Your task to perform on an android device: set the timer Image 0: 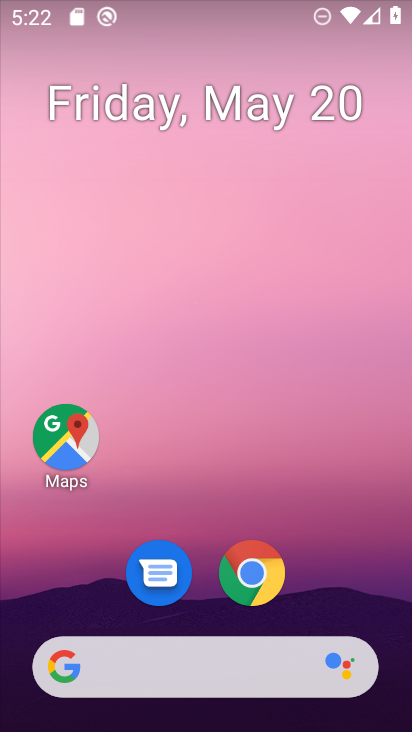
Step 0: drag from (345, 500) to (228, 11)
Your task to perform on an android device: set the timer Image 1: 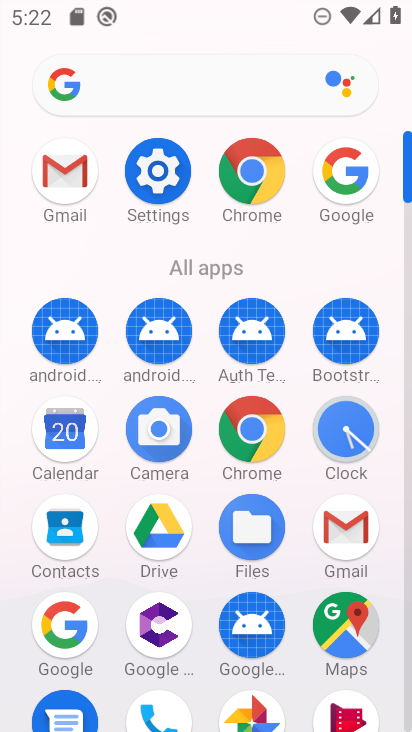
Step 1: click (355, 436)
Your task to perform on an android device: set the timer Image 2: 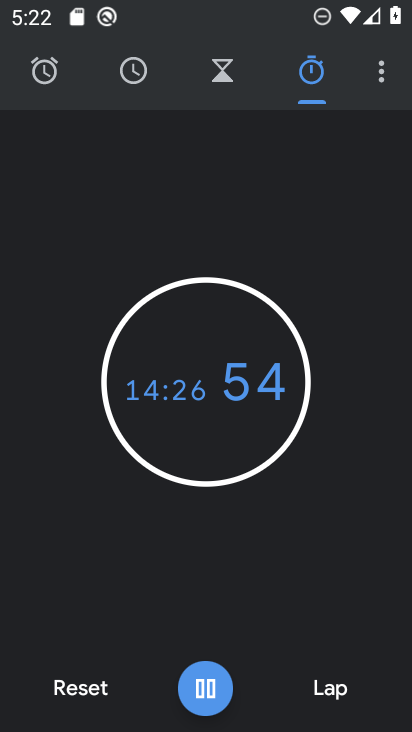
Step 2: click (217, 69)
Your task to perform on an android device: set the timer Image 3: 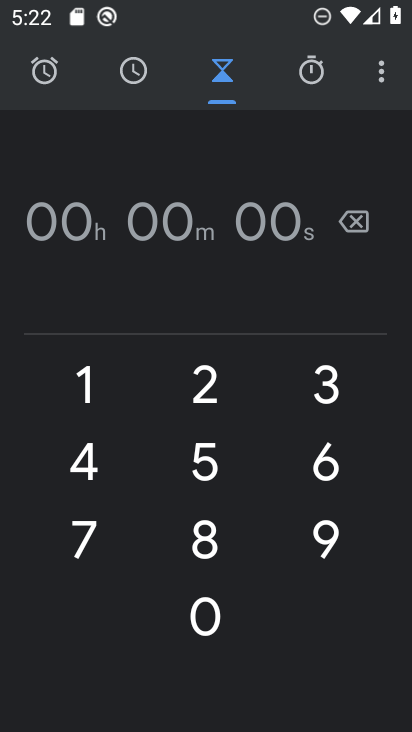
Step 3: click (87, 378)
Your task to perform on an android device: set the timer Image 4: 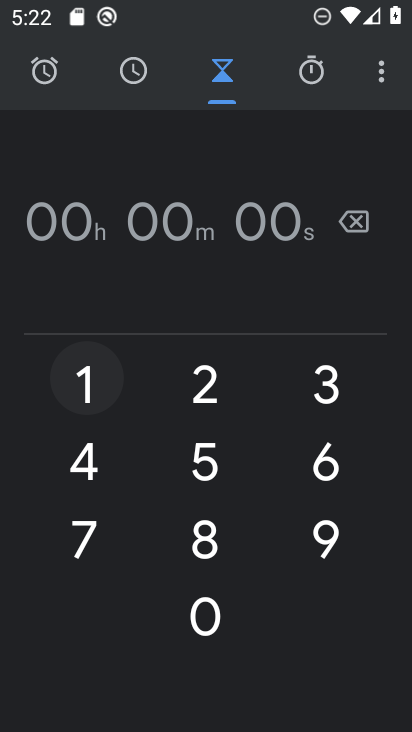
Step 4: click (93, 380)
Your task to perform on an android device: set the timer Image 5: 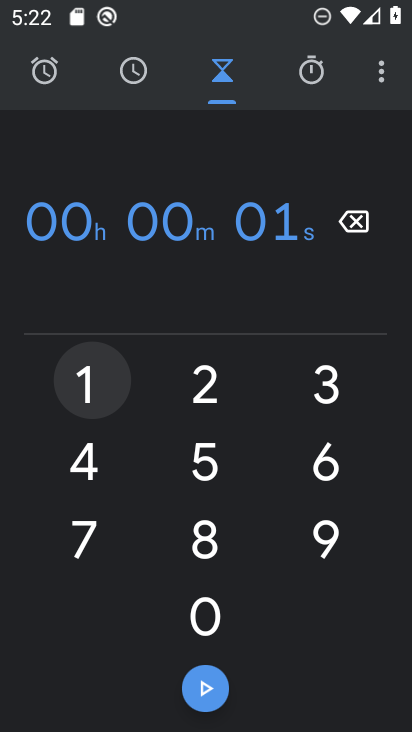
Step 5: click (94, 381)
Your task to perform on an android device: set the timer Image 6: 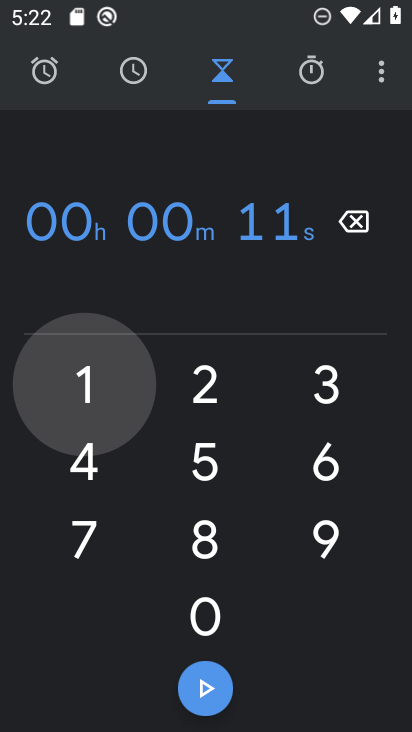
Step 6: click (96, 381)
Your task to perform on an android device: set the timer Image 7: 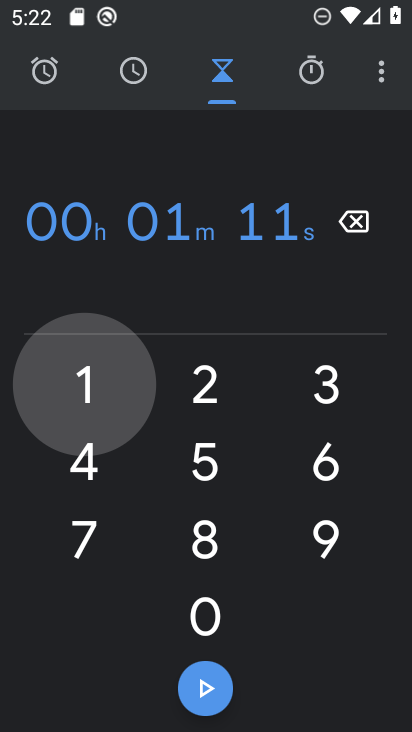
Step 7: click (98, 381)
Your task to perform on an android device: set the timer Image 8: 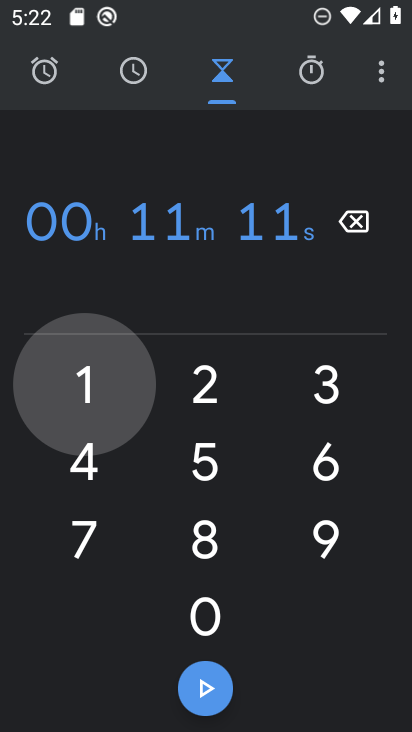
Step 8: click (99, 381)
Your task to perform on an android device: set the timer Image 9: 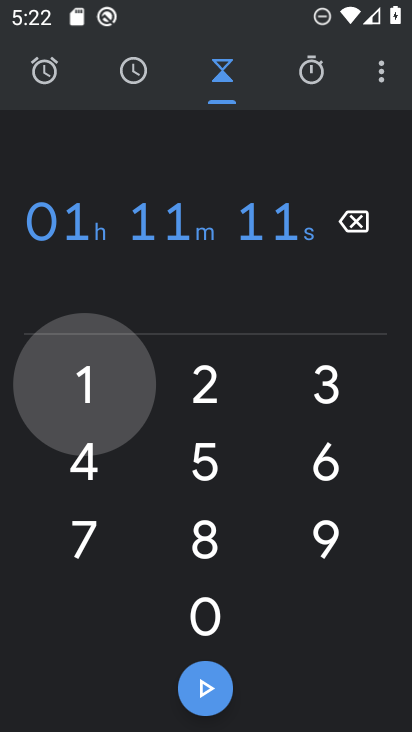
Step 9: click (99, 381)
Your task to perform on an android device: set the timer Image 10: 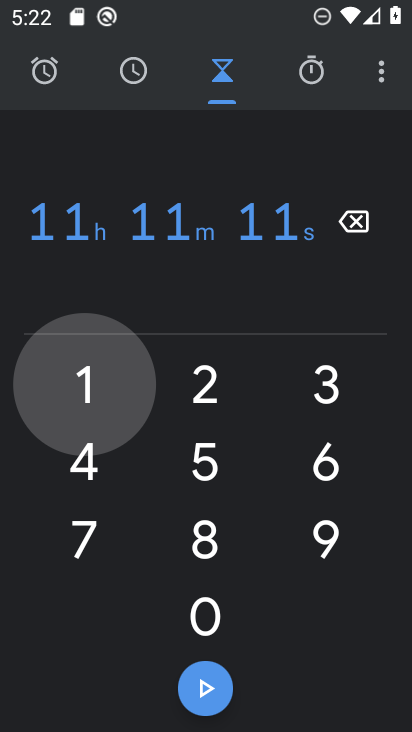
Step 10: click (99, 381)
Your task to perform on an android device: set the timer Image 11: 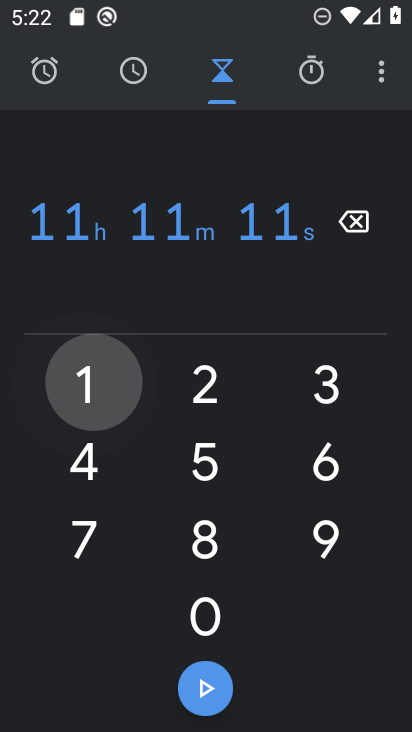
Step 11: click (99, 381)
Your task to perform on an android device: set the timer Image 12: 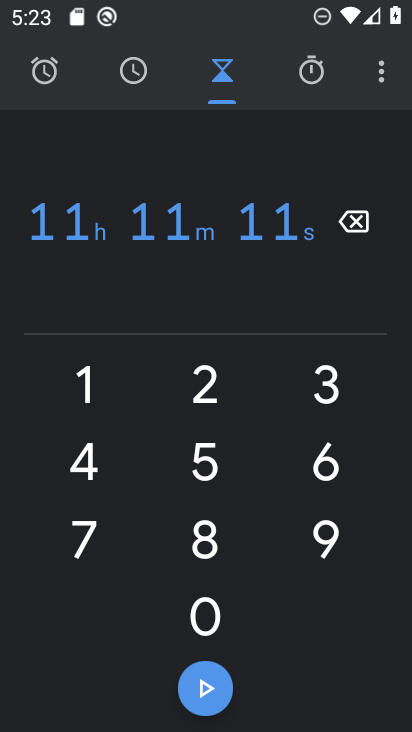
Step 12: click (219, 684)
Your task to perform on an android device: set the timer Image 13: 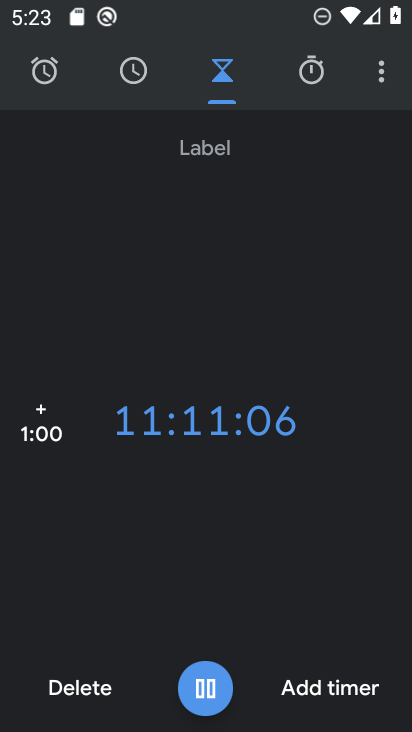
Step 13: task complete